Your task to perform on an android device: open wifi settings Image 0: 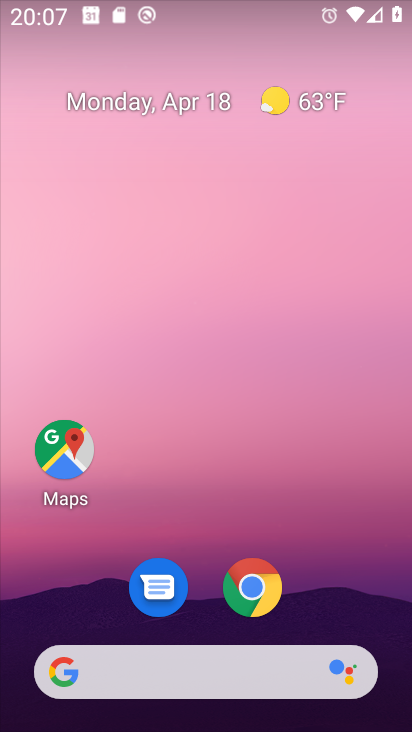
Step 0: drag from (338, 567) to (271, 106)
Your task to perform on an android device: open wifi settings Image 1: 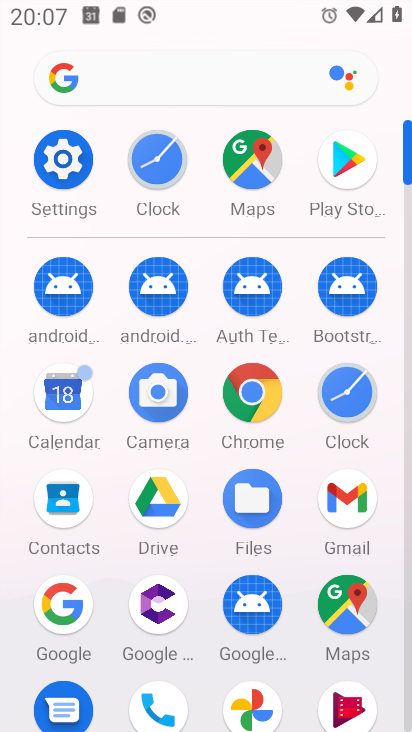
Step 1: click (85, 186)
Your task to perform on an android device: open wifi settings Image 2: 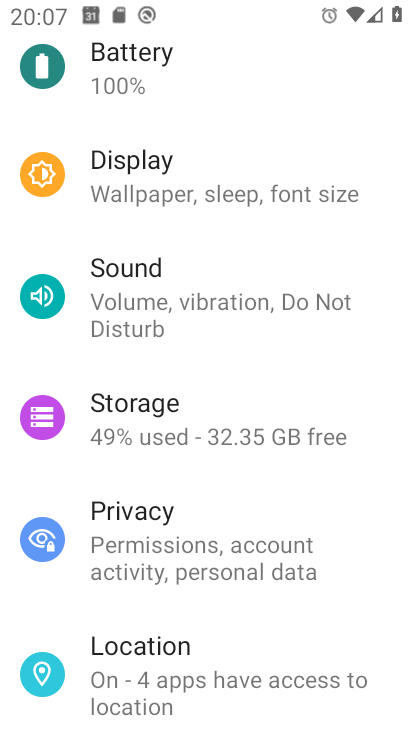
Step 2: drag from (240, 250) to (274, 462)
Your task to perform on an android device: open wifi settings Image 3: 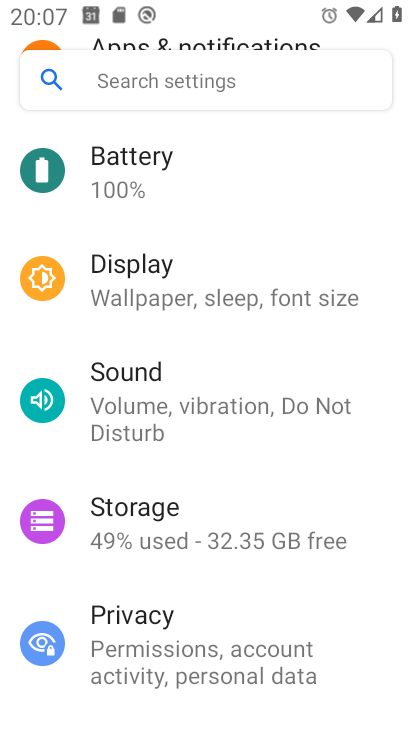
Step 3: drag from (283, 223) to (346, 652)
Your task to perform on an android device: open wifi settings Image 4: 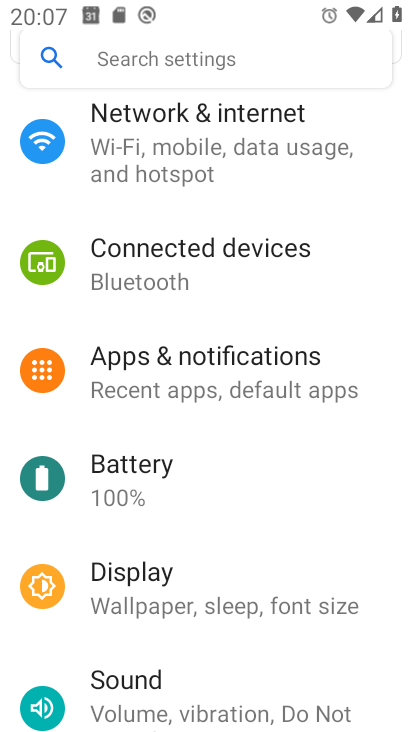
Step 4: click (237, 160)
Your task to perform on an android device: open wifi settings Image 5: 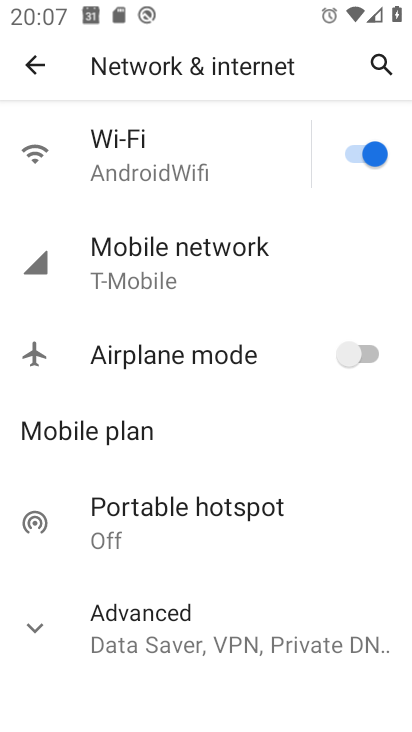
Step 5: task complete